Your task to perform on an android device: star an email in the gmail app Image 0: 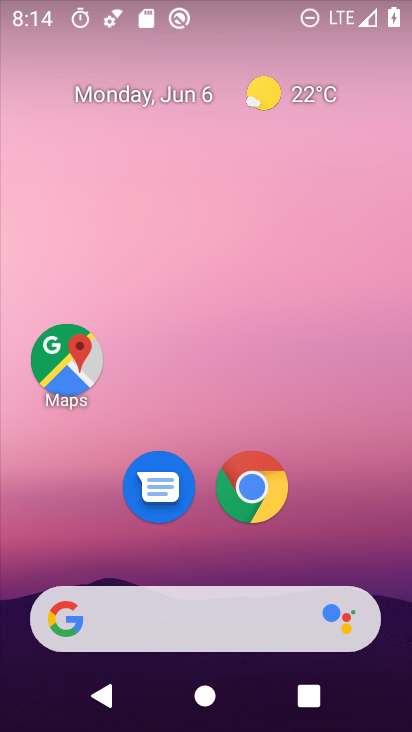
Step 0: drag from (388, 612) to (306, 69)
Your task to perform on an android device: star an email in the gmail app Image 1: 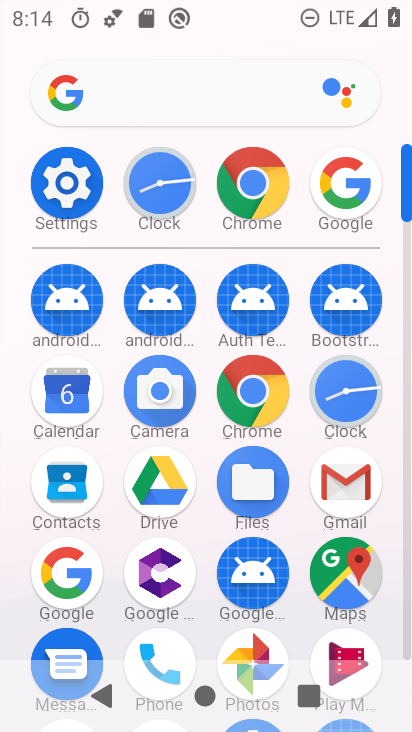
Step 1: click (347, 489)
Your task to perform on an android device: star an email in the gmail app Image 2: 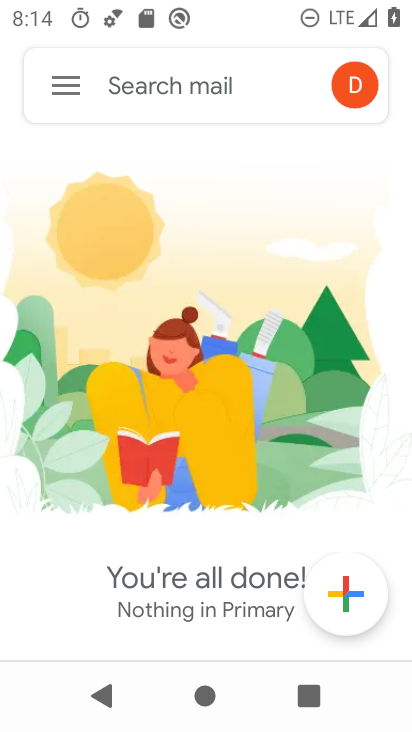
Step 2: task complete